Your task to perform on an android device: Open Reddit.com Image 0: 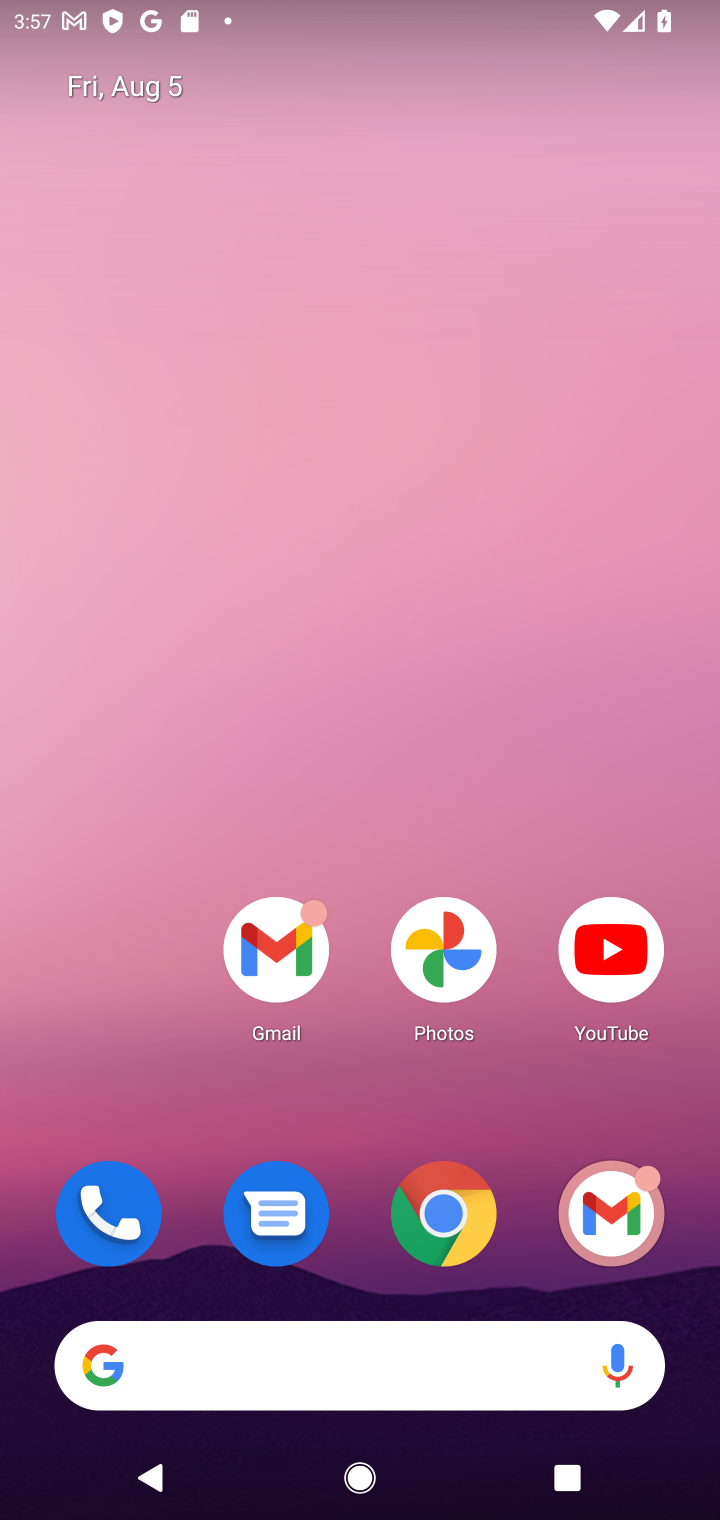
Step 0: click (466, 1219)
Your task to perform on an android device: Open Reddit.com Image 1: 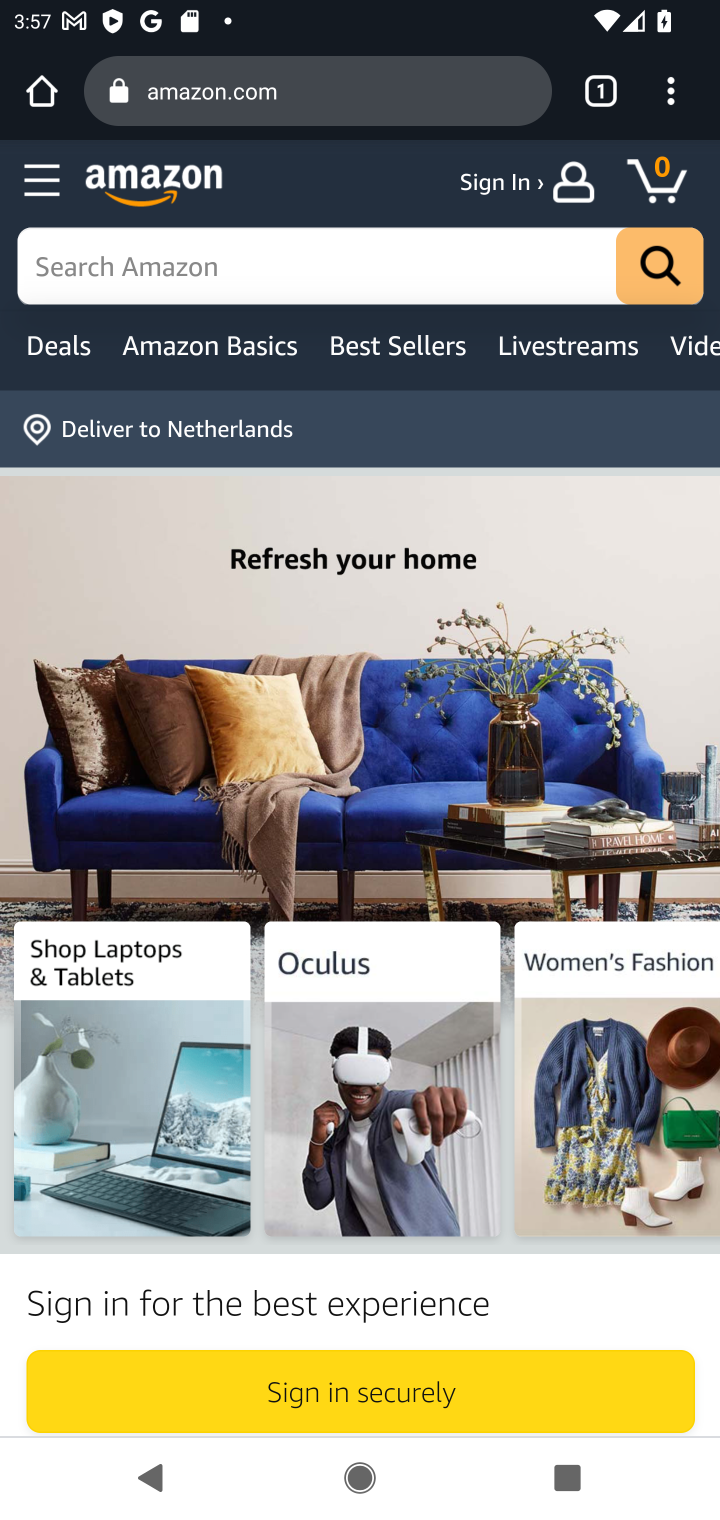
Step 1: click (455, 110)
Your task to perform on an android device: Open Reddit.com Image 2: 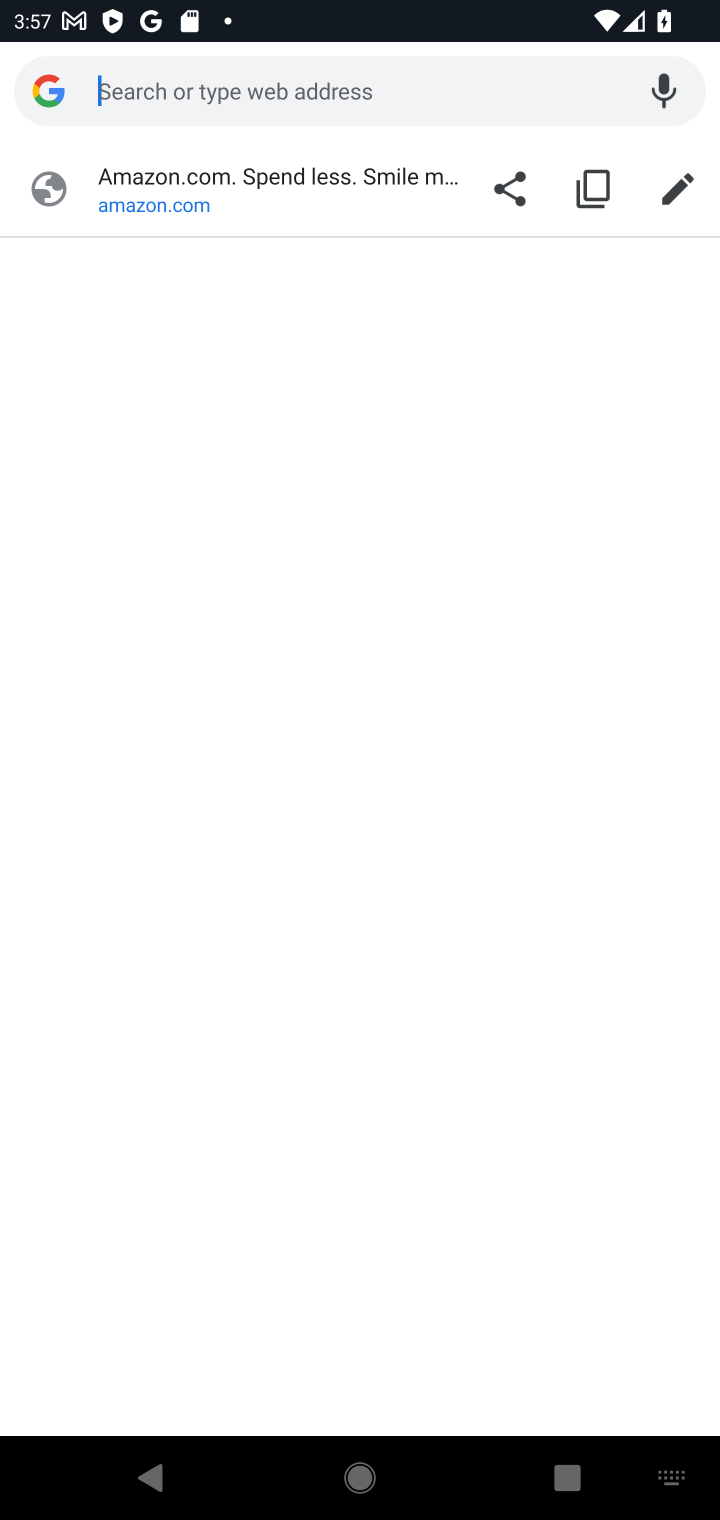
Step 2: type "redditt"
Your task to perform on an android device: Open Reddit.com Image 3: 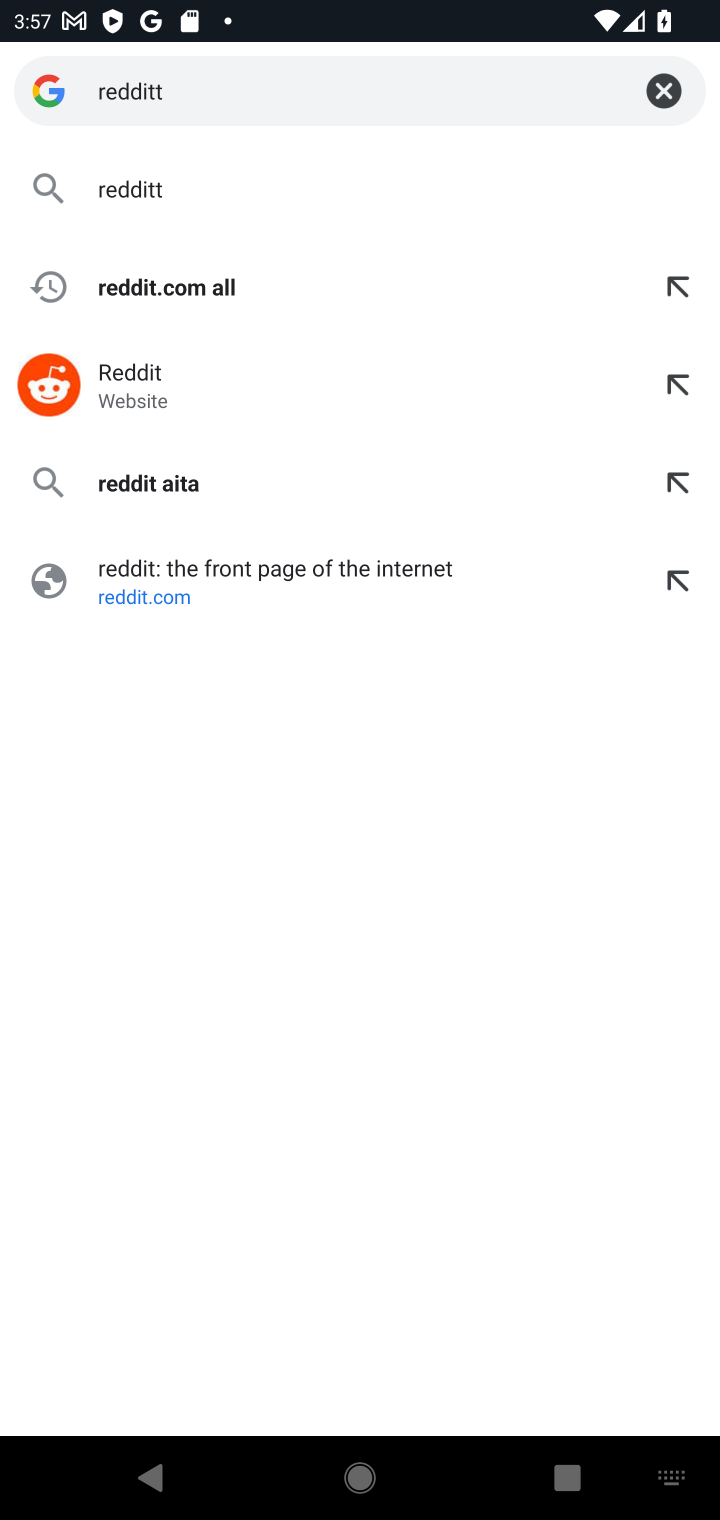
Step 3: click (231, 196)
Your task to perform on an android device: Open Reddit.com Image 4: 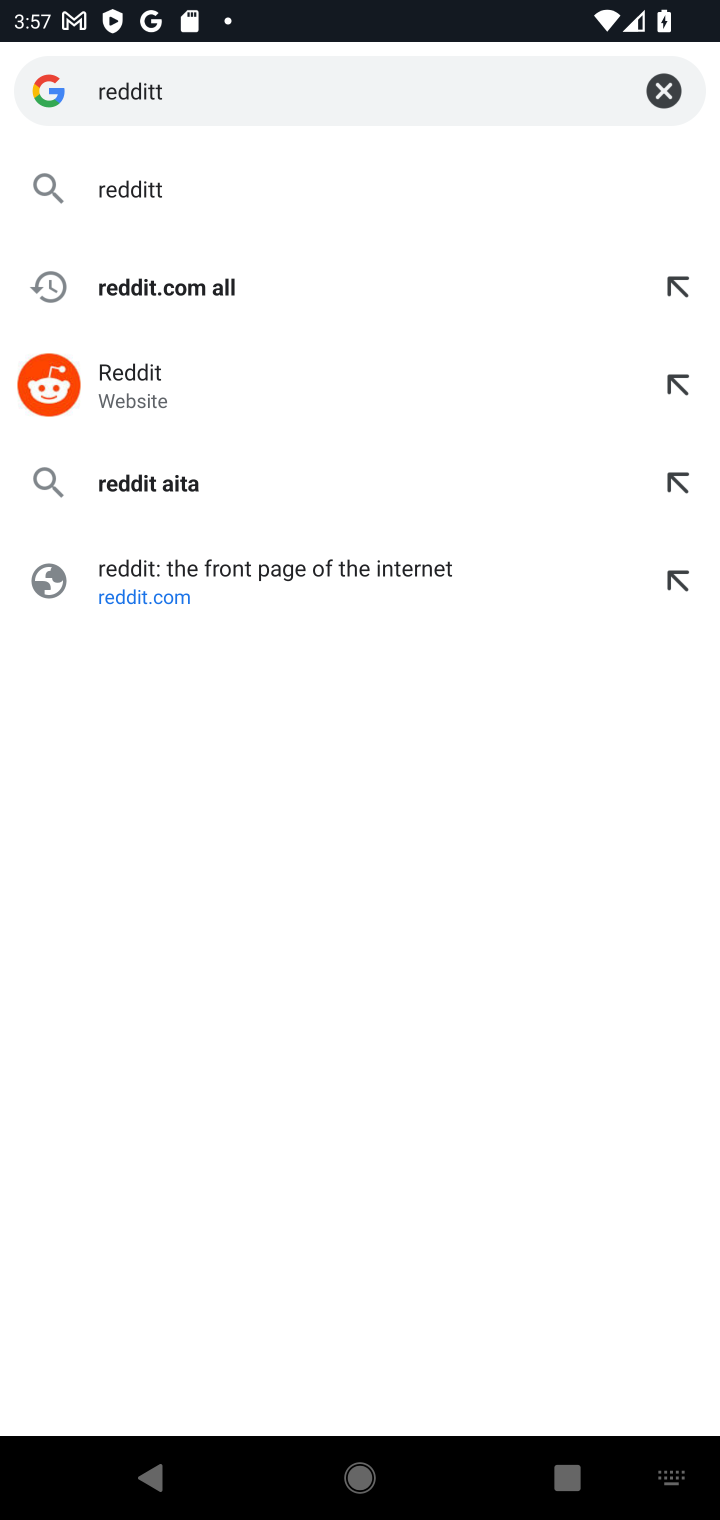
Step 4: click (231, 196)
Your task to perform on an android device: Open Reddit.com Image 5: 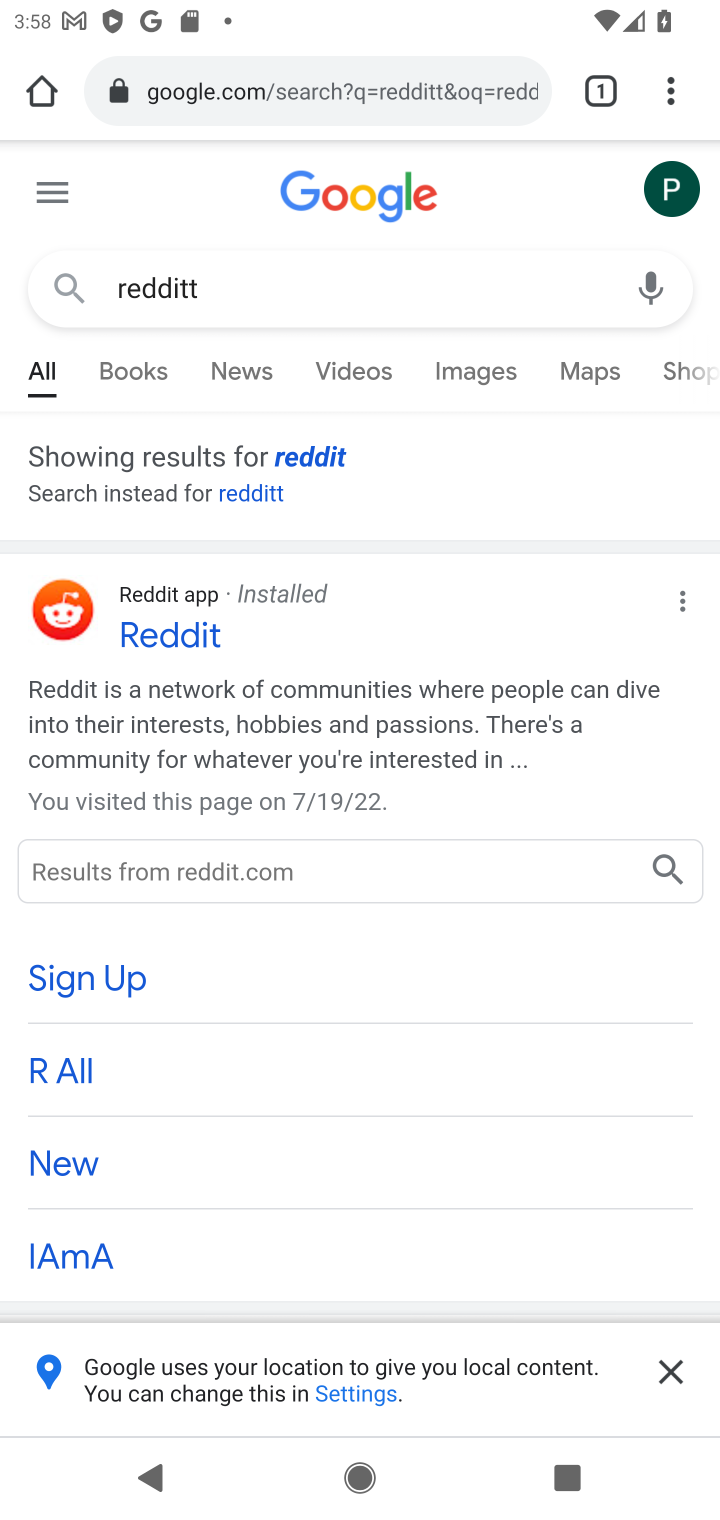
Step 5: click (204, 614)
Your task to perform on an android device: Open Reddit.com Image 6: 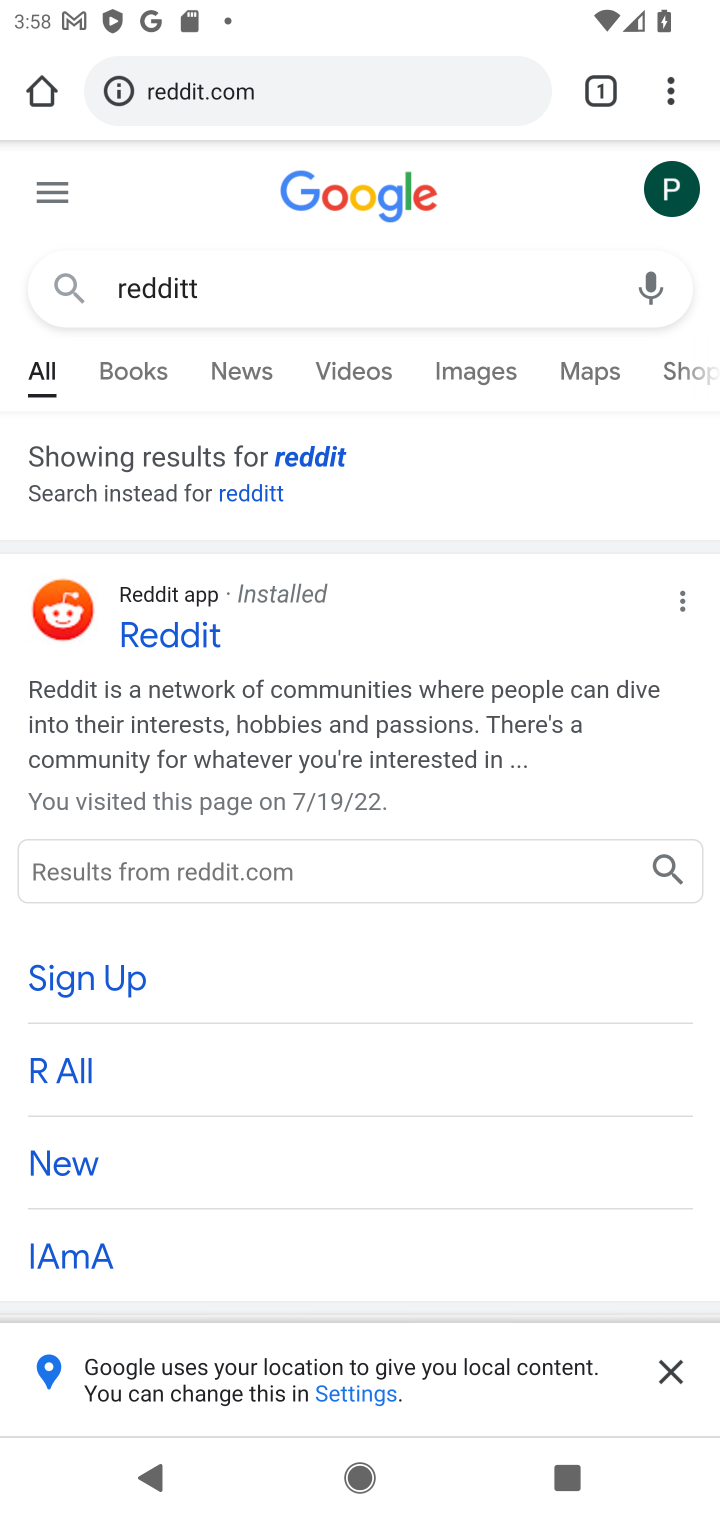
Step 6: task complete